Your task to perform on an android device: toggle javascript in the chrome app Image 0: 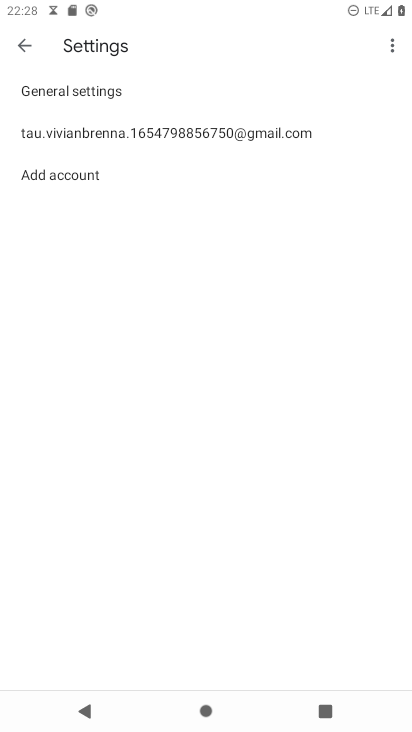
Step 0: press home button
Your task to perform on an android device: toggle javascript in the chrome app Image 1: 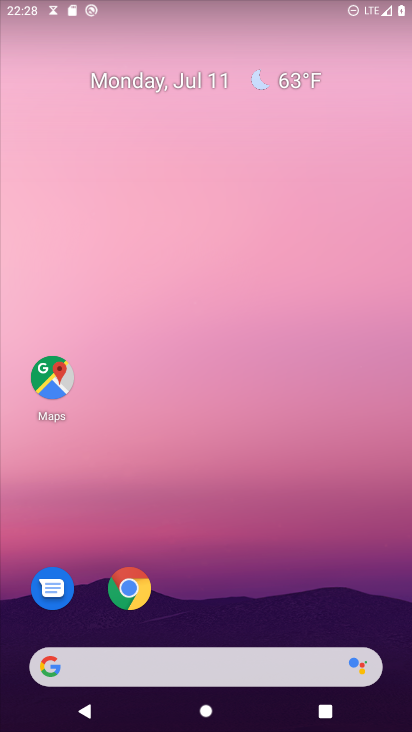
Step 1: click (124, 588)
Your task to perform on an android device: toggle javascript in the chrome app Image 2: 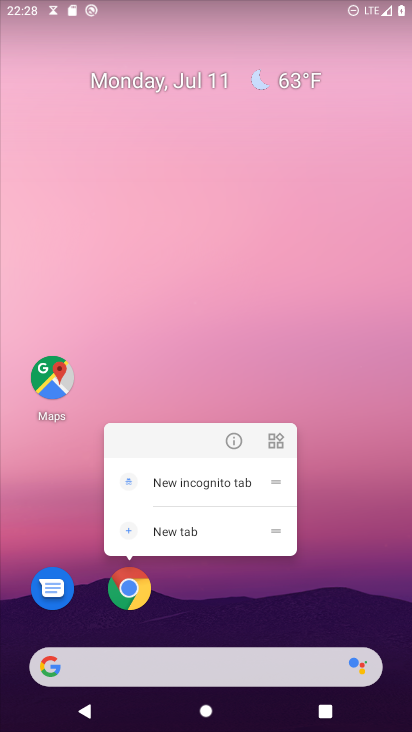
Step 2: click (124, 588)
Your task to perform on an android device: toggle javascript in the chrome app Image 3: 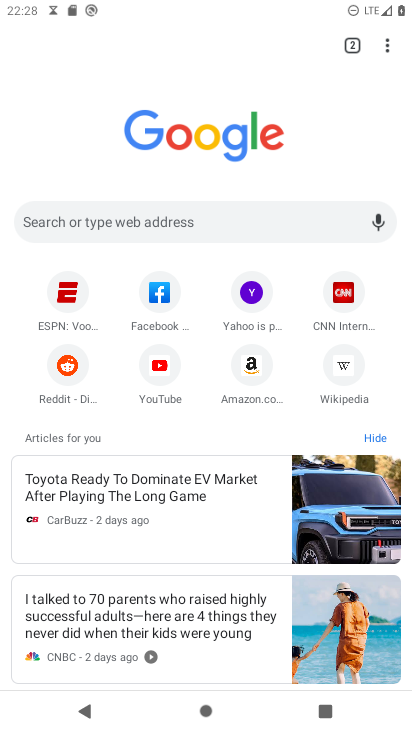
Step 3: click (386, 41)
Your task to perform on an android device: toggle javascript in the chrome app Image 4: 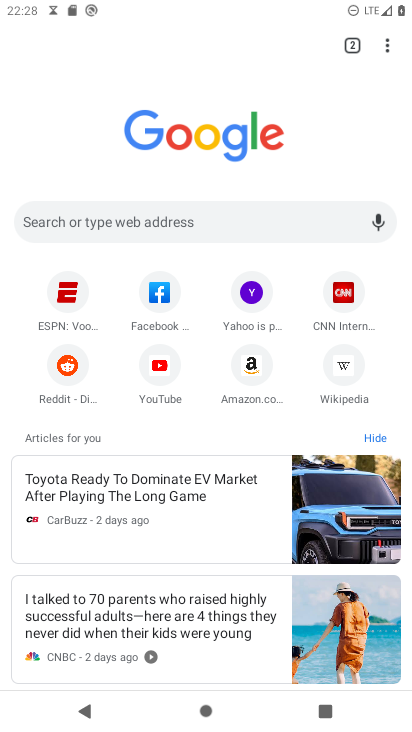
Step 4: drag from (385, 41) to (227, 386)
Your task to perform on an android device: toggle javascript in the chrome app Image 5: 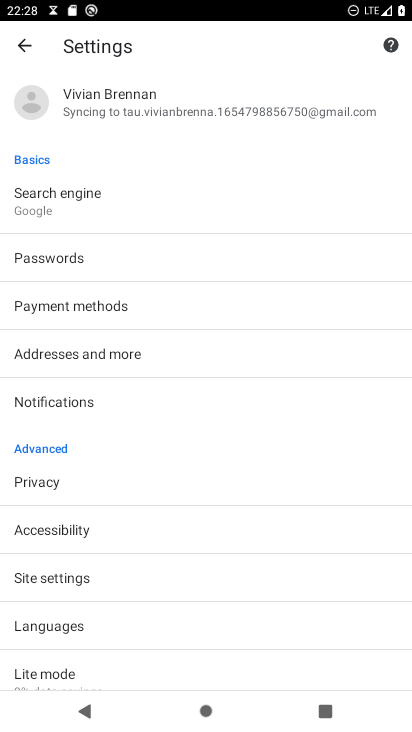
Step 5: click (22, 573)
Your task to perform on an android device: toggle javascript in the chrome app Image 6: 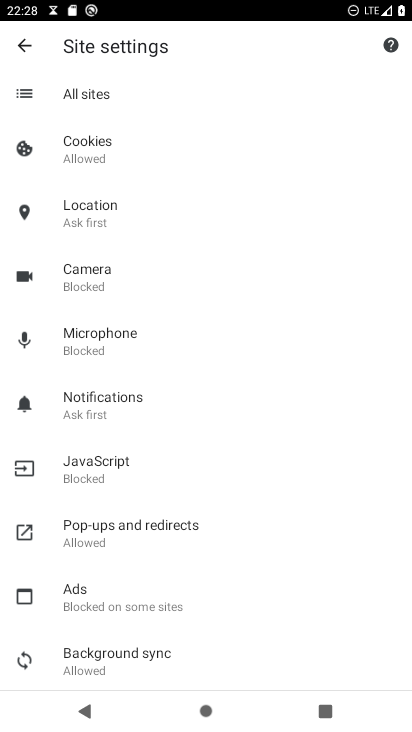
Step 6: click (117, 466)
Your task to perform on an android device: toggle javascript in the chrome app Image 7: 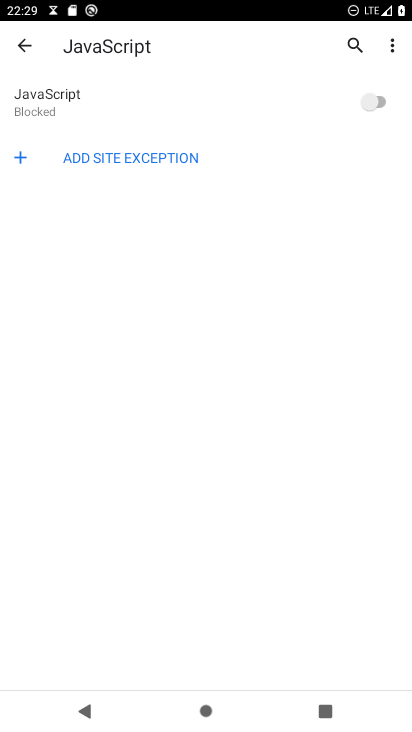
Step 7: click (375, 106)
Your task to perform on an android device: toggle javascript in the chrome app Image 8: 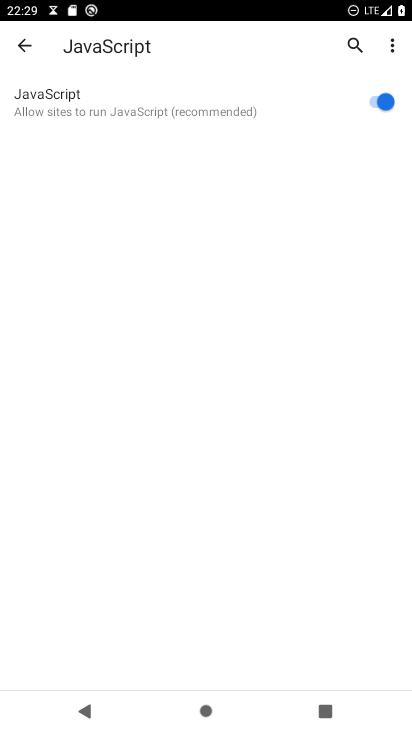
Step 8: task complete